Your task to perform on an android device: create a new album in the google photos Image 0: 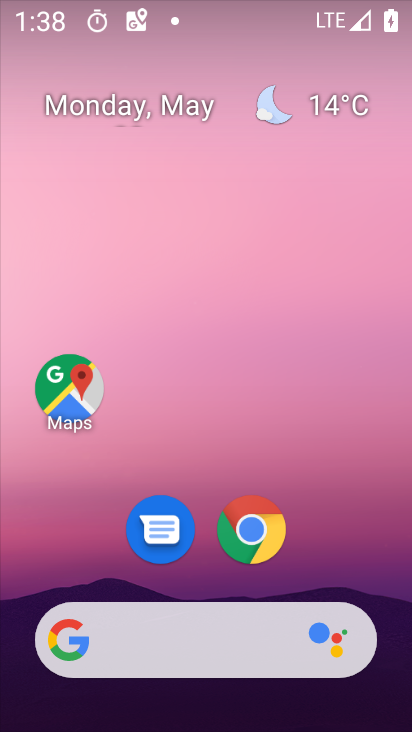
Step 0: drag from (374, 577) to (389, 196)
Your task to perform on an android device: create a new album in the google photos Image 1: 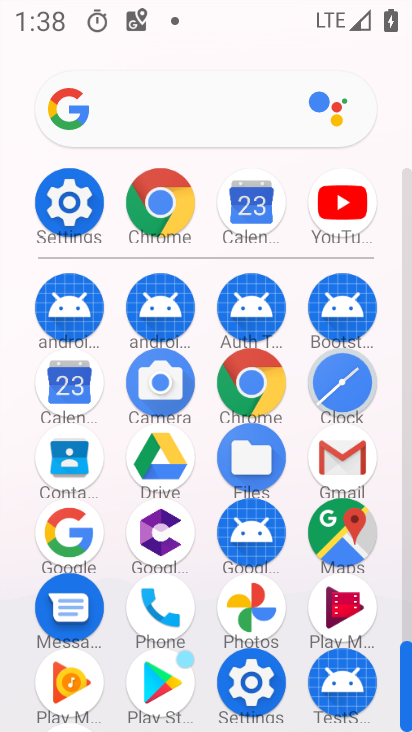
Step 1: click (260, 609)
Your task to perform on an android device: create a new album in the google photos Image 2: 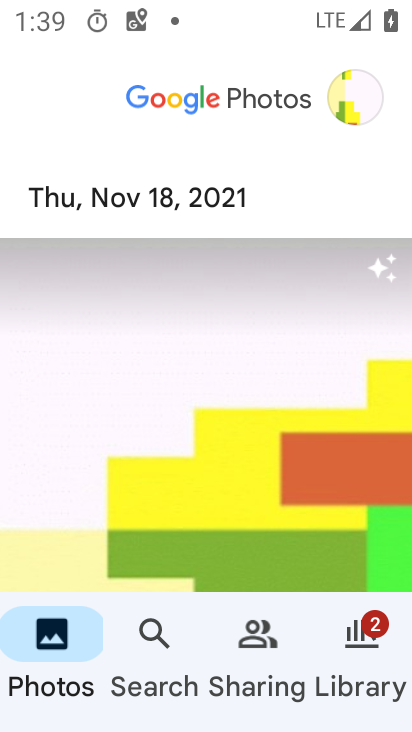
Step 2: click (349, 657)
Your task to perform on an android device: create a new album in the google photos Image 3: 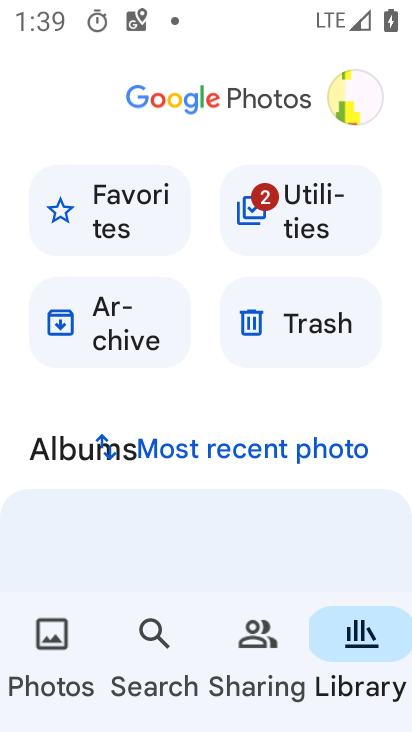
Step 3: click (99, 437)
Your task to perform on an android device: create a new album in the google photos Image 4: 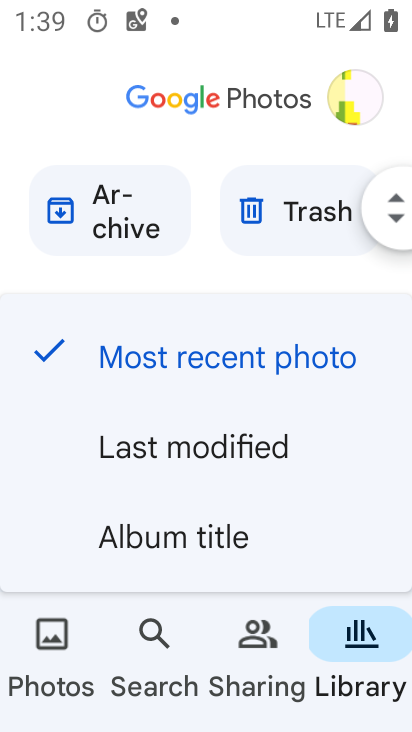
Step 4: drag from (301, 540) to (305, 293)
Your task to perform on an android device: create a new album in the google photos Image 5: 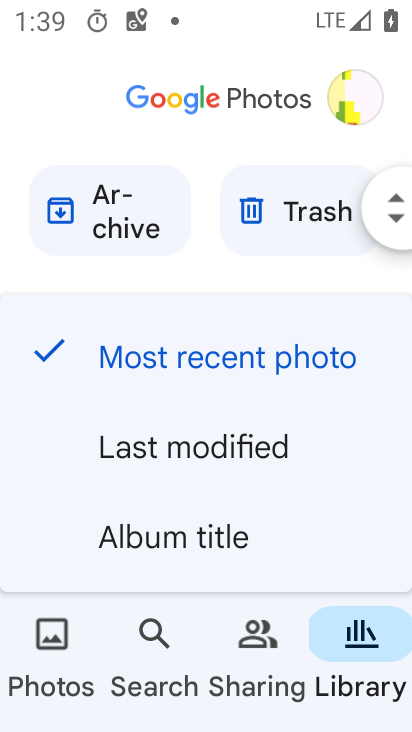
Step 5: click (191, 547)
Your task to perform on an android device: create a new album in the google photos Image 6: 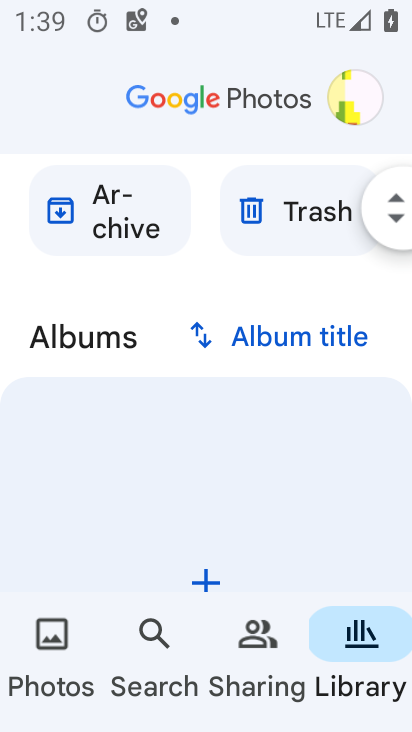
Step 6: task complete